Your task to perform on an android device: open app "Google Keep" Image 0: 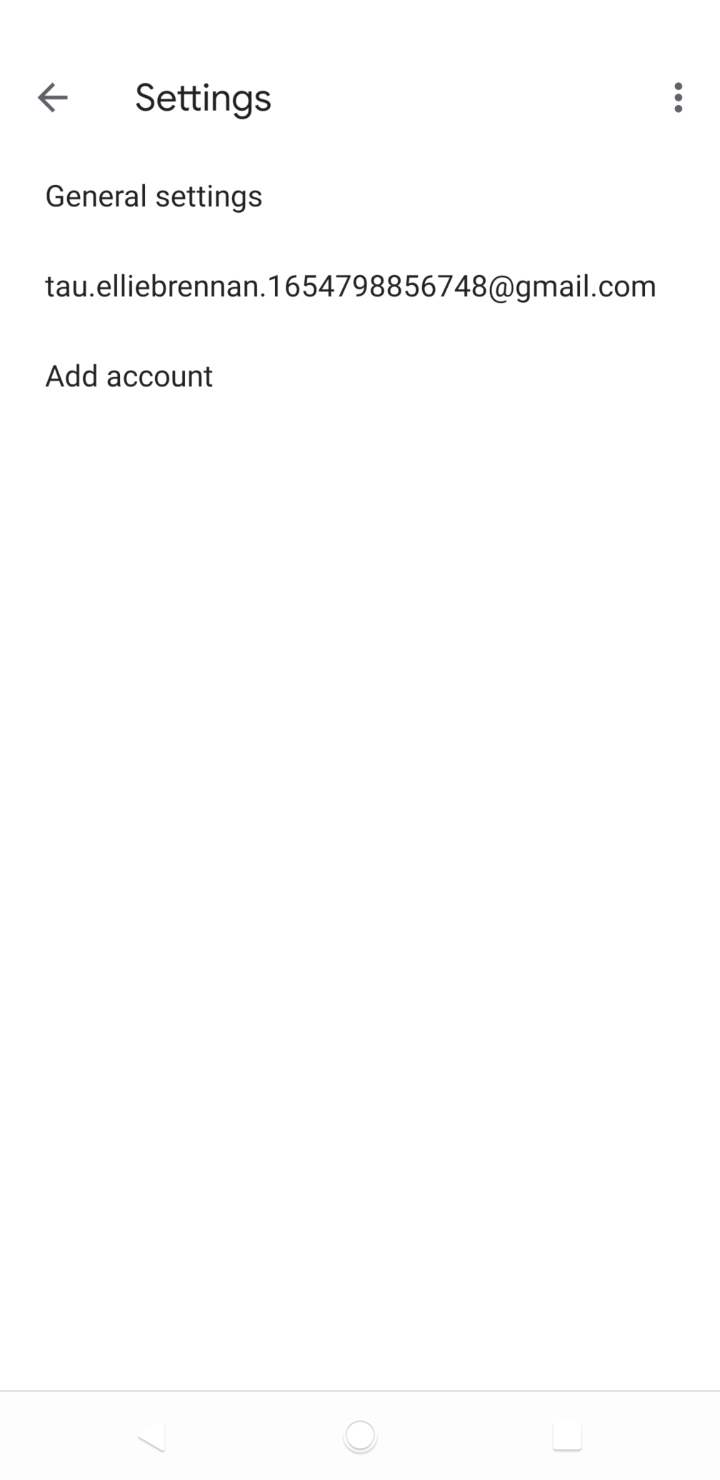
Step 0: press home button
Your task to perform on an android device: open app "Google Keep" Image 1: 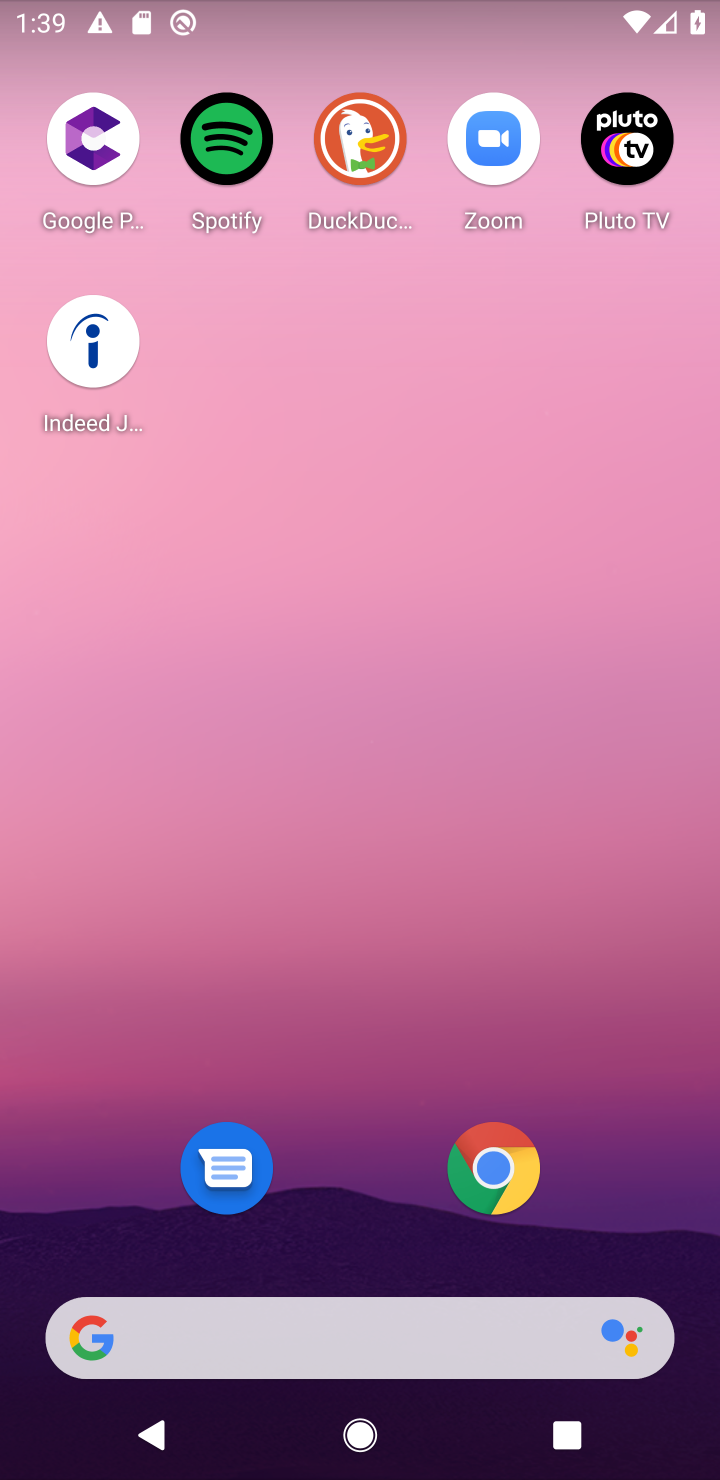
Step 1: drag from (647, 1246) to (528, 36)
Your task to perform on an android device: open app "Google Keep" Image 2: 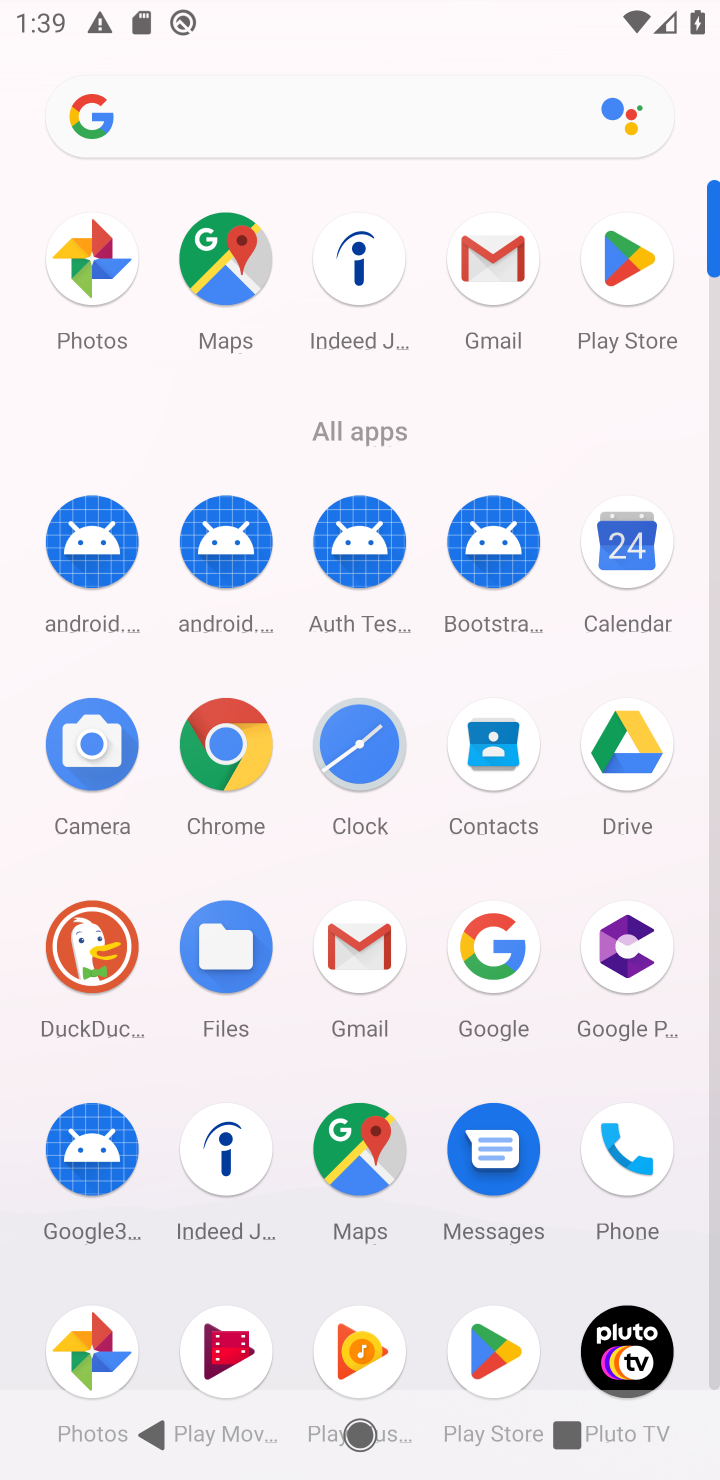
Step 2: click (502, 1357)
Your task to perform on an android device: open app "Google Keep" Image 3: 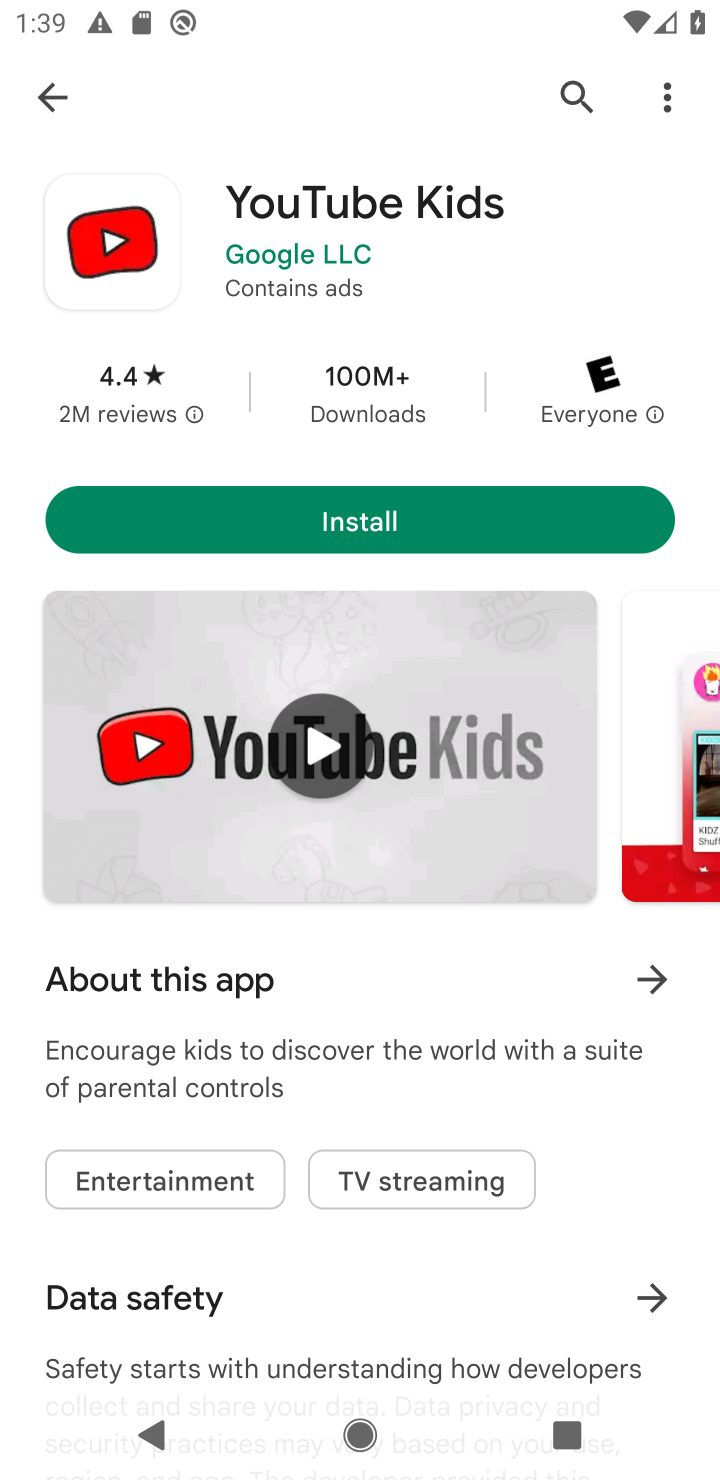
Step 3: click (581, 86)
Your task to perform on an android device: open app "Google Keep" Image 4: 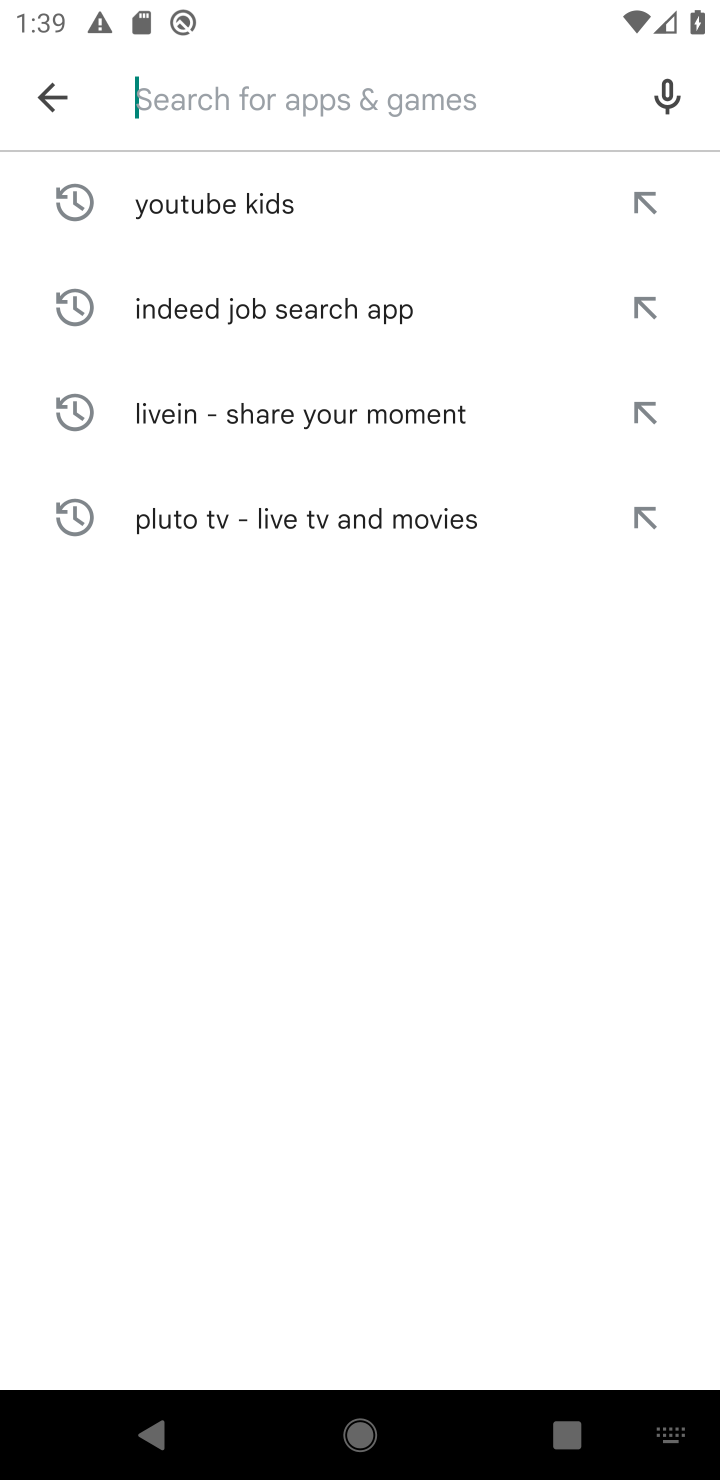
Step 4: type "Google Keep"
Your task to perform on an android device: open app "Google Keep" Image 5: 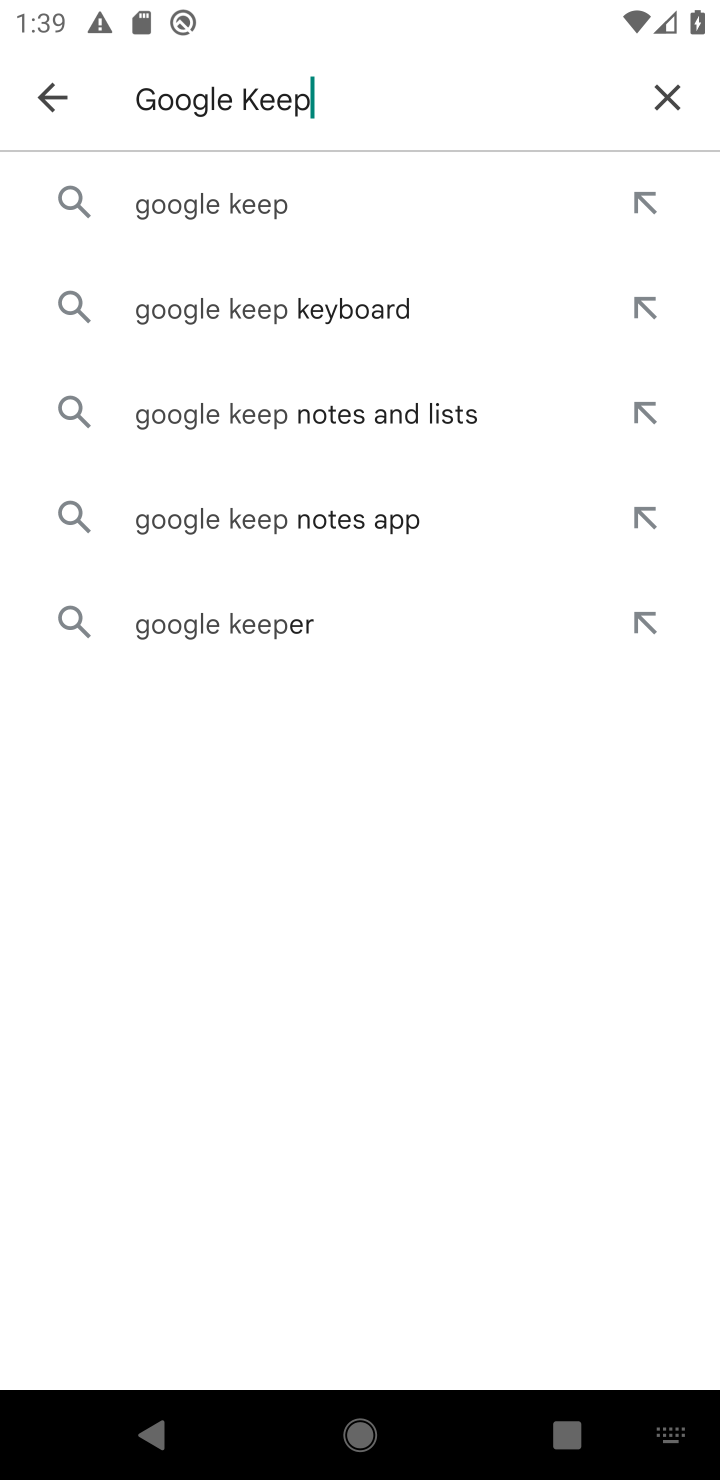
Step 5: click (200, 206)
Your task to perform on an android device: open app "Google Keep" Image 6: 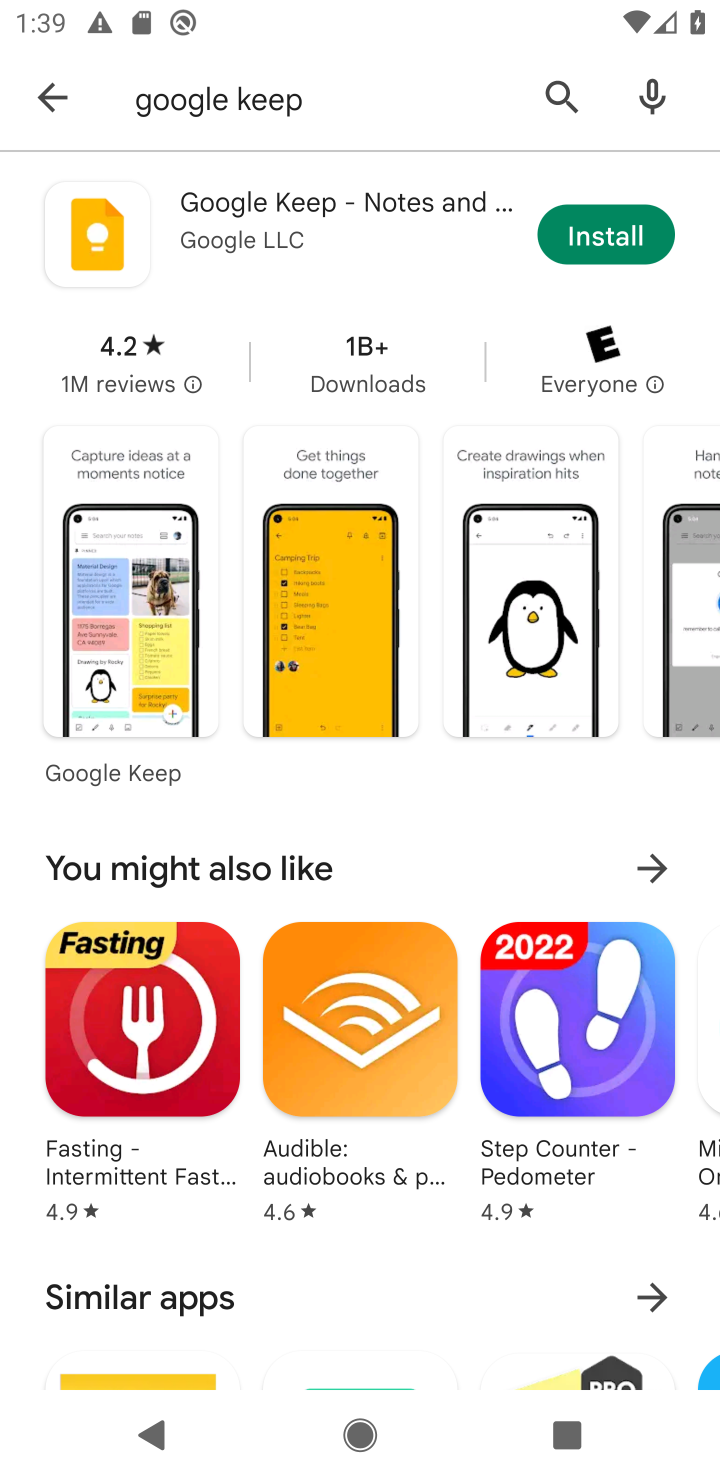
Step 6: task complete